Your task to perform on an android device: Open Chrome and go to settings Image 0: 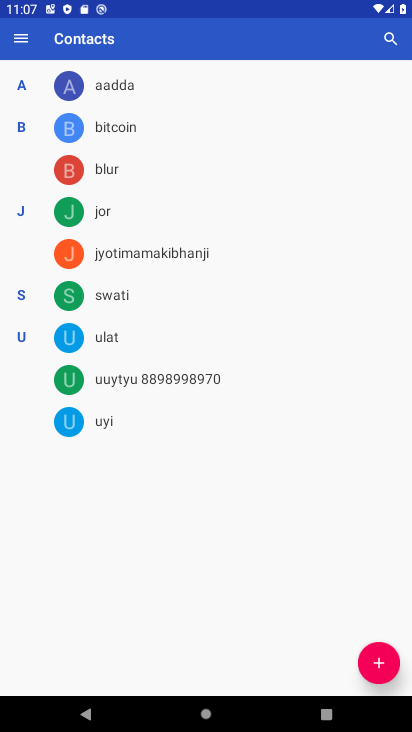
Step 0: press home button
Your task to perform on an android device: Open Chrome and go to settings Image 1: 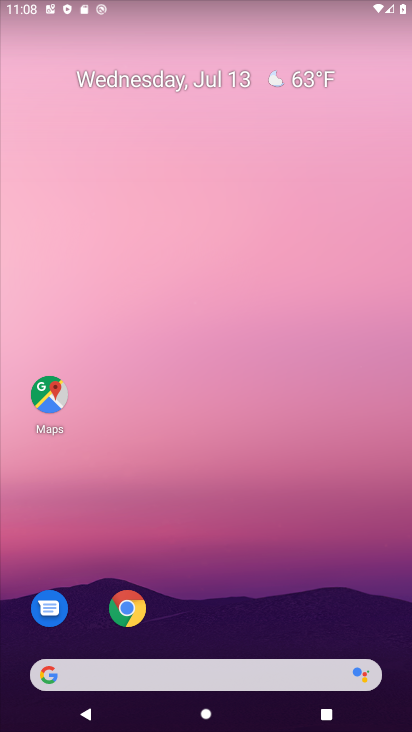
Step 1: click (129, 606)
Your task to perform on an android device: Open Chrome and go to settings Image 2: 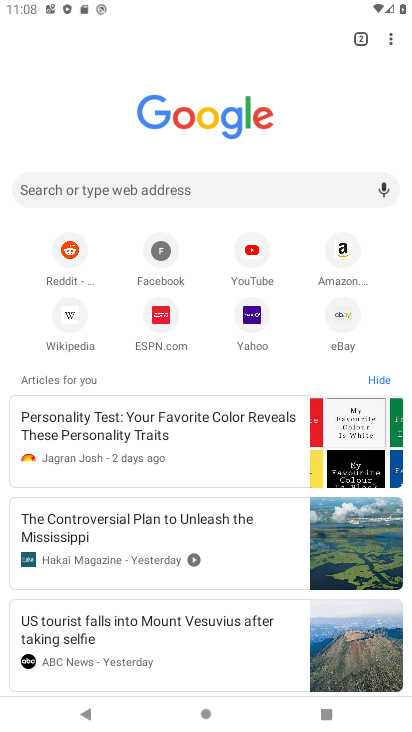
Step 2: task complete